Your task to perform on an android device: check out phone information Image 0: 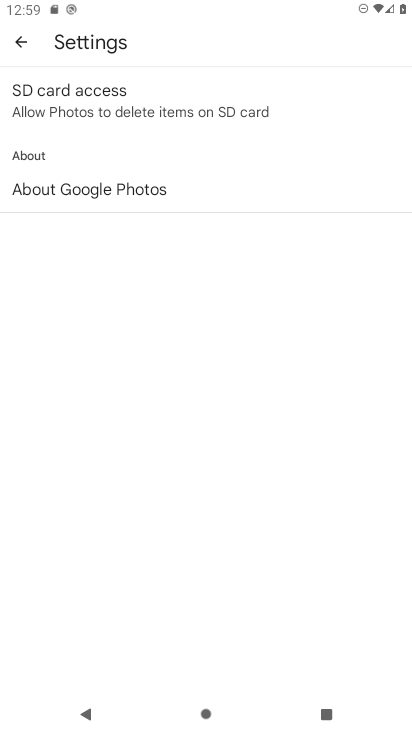
Step 0: press home button
Your task to perform on an android device: check out phone information Image 1: 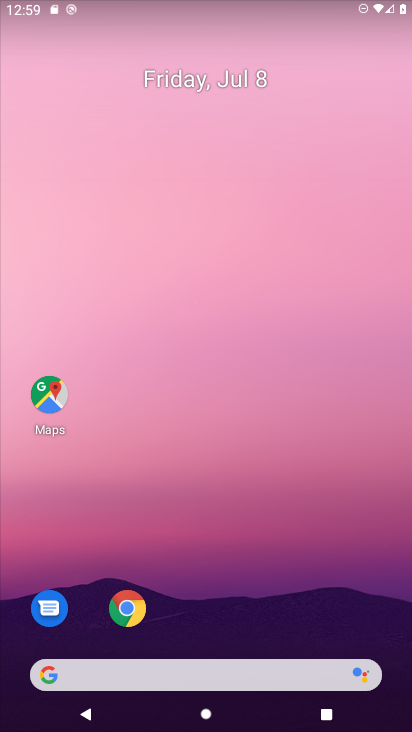
Step 1: drag from (243, 619) to (240, 199)
Your task to perform on an android device: check out phone information Image 2: 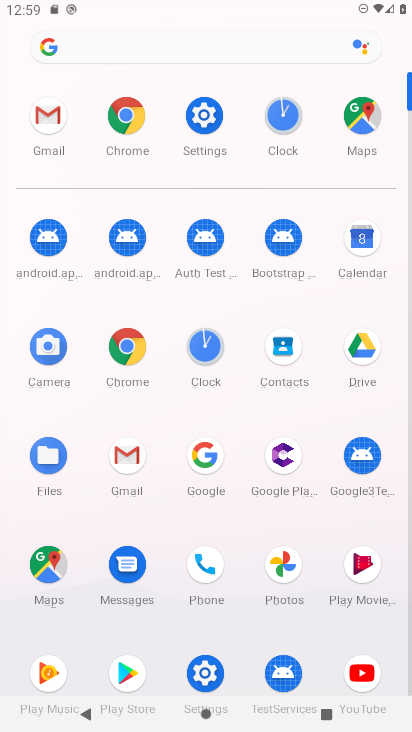
Step 2: click (196, 142)
Your task to perform on an android device: check out phone information Image 3: 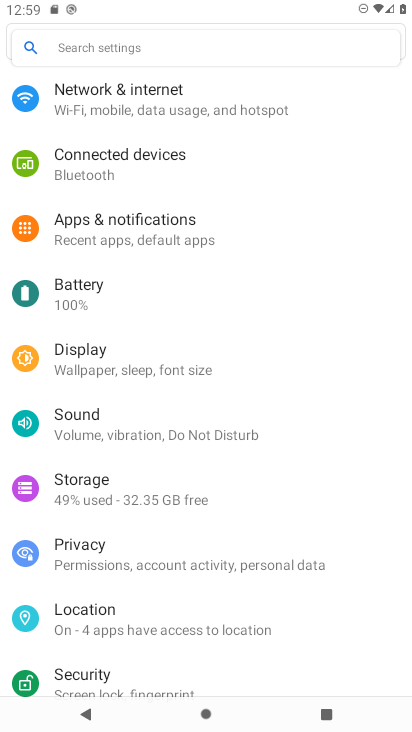
Step 3: drag from (160, 396) to (135, 648)
Your task to perform on an android device: check out phone information Image 4: 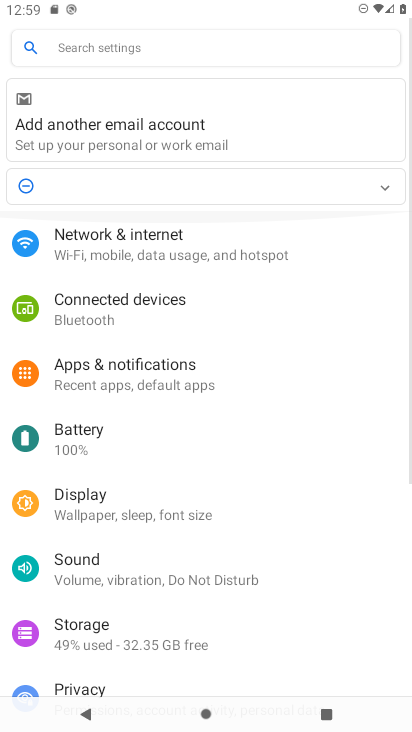
Step 4: drag from (135, 648) to (194, 249)
Your task to perform on an android device: check out phone information Image 5: 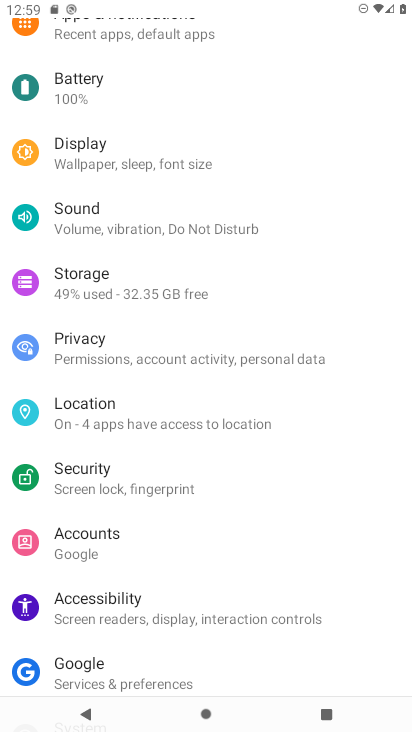
Step 5: drag from (98, 628) to (130, 211)
Your task to perform on an android device: check out phone information Image 6: 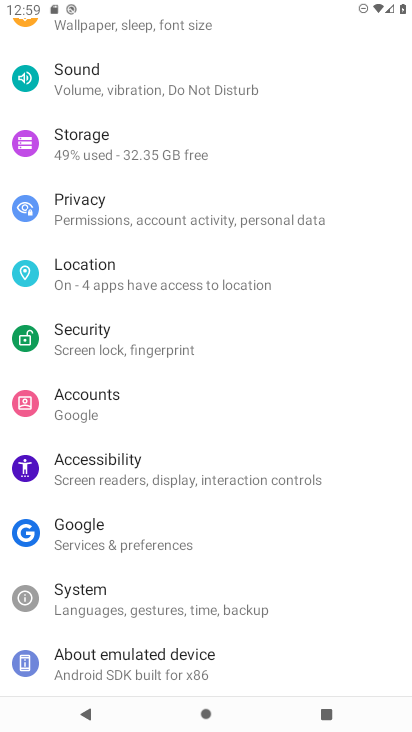
Step 6: click (115, 655)
Your task to perform on an android device: check out phone information Image 7: 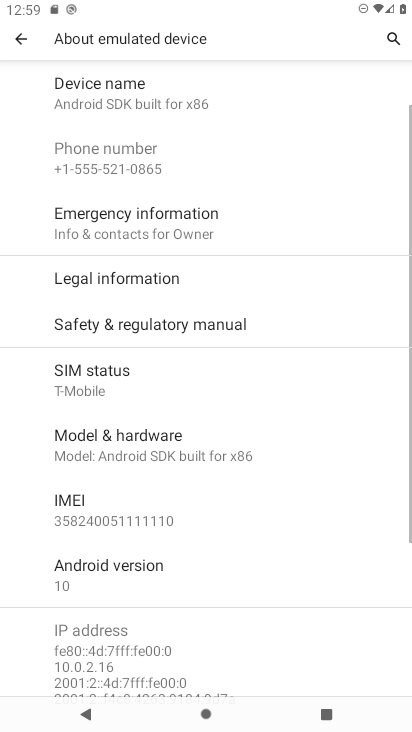
Step 7: task complete